Your task to perform on an android device: Open Chrome and go to the settings page Image 0: 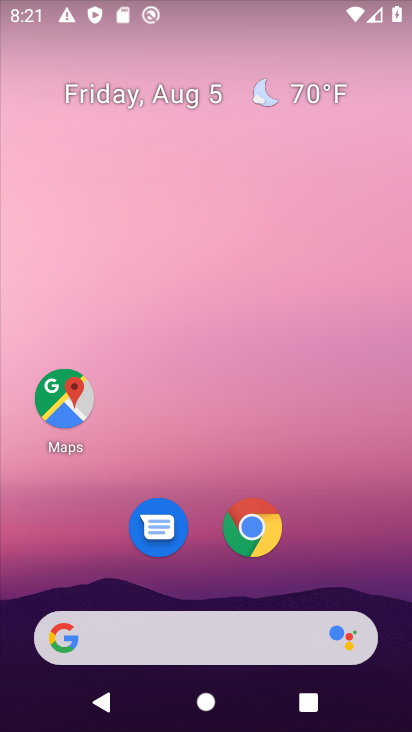
Step 0: click (239, 522)
Your task to perform on an android device: Open Chrome and go to the settings page Image 1: 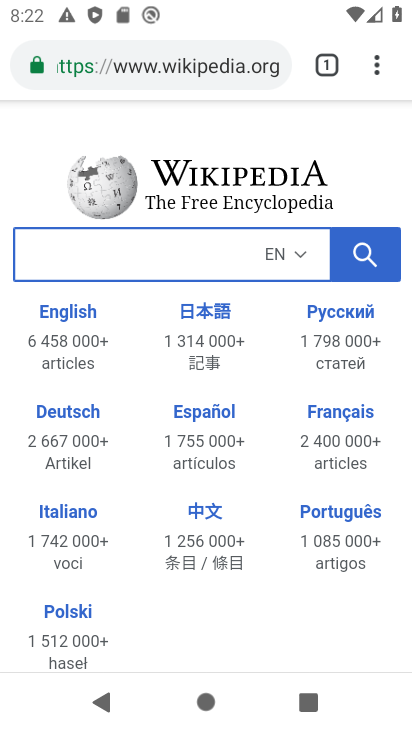
Step 1: task complete